Your task to perform on an android device: turn off notifications in google photos Image 0: 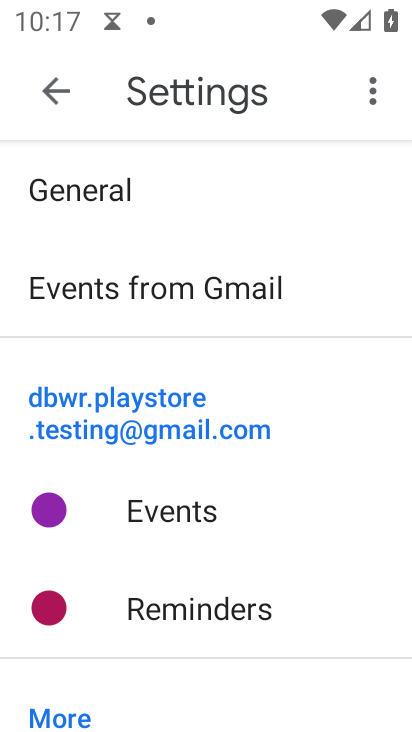
Step 0: press home button
Your task to perform on an android device: turn off notifications in google photos Image 1: 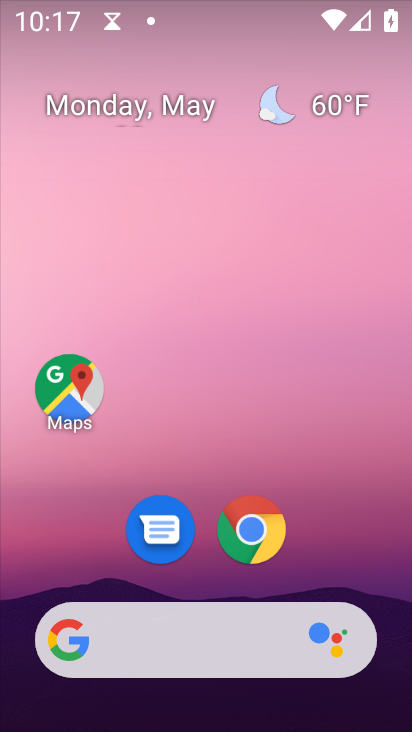
Step 1: drag from (220, 585) to (218, 71)
Your task to perform on an android device: turn off notifications in google photos Image 2: 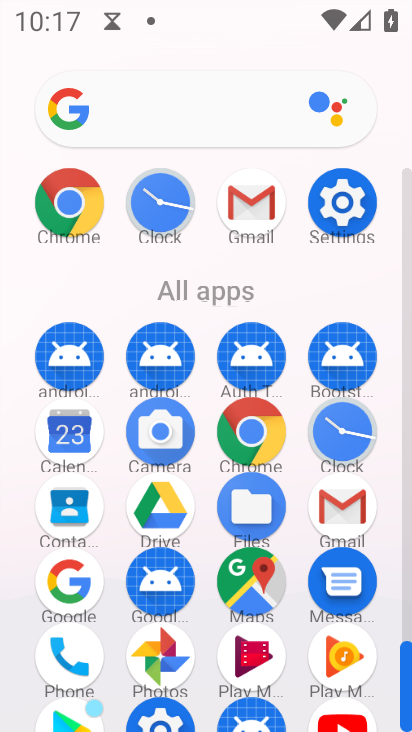
Step 2: click (165, 665)
Your task to perform on an android device: turn off notifications in google photos Image 3: 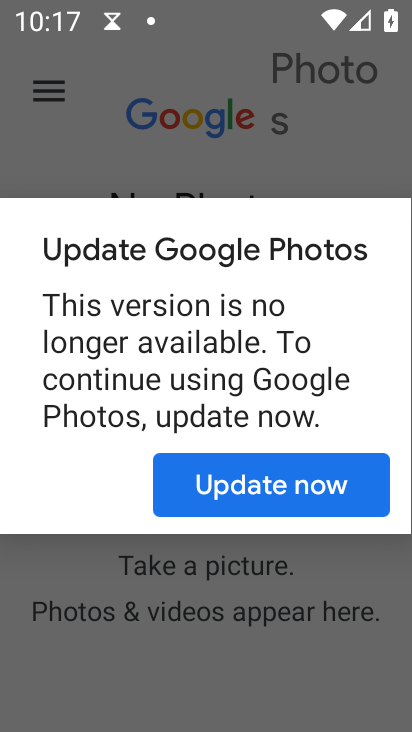
Step 3: click (236, 483)
Your task to perform on an android device: turn off notifications in google photos Image 4: 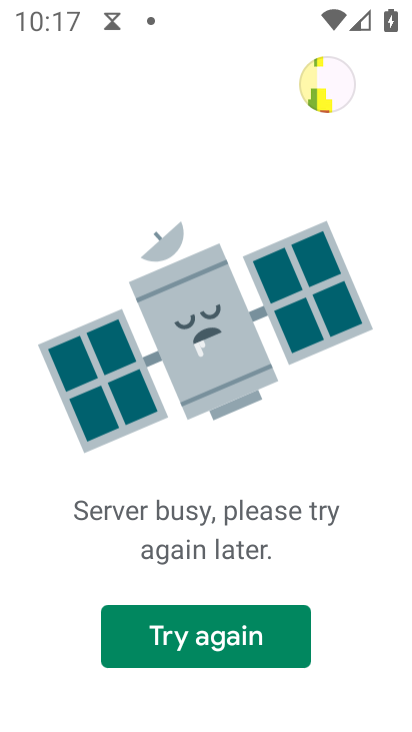
Step 4: task complete